Your task to perform on an android device: Open the map Image 0: 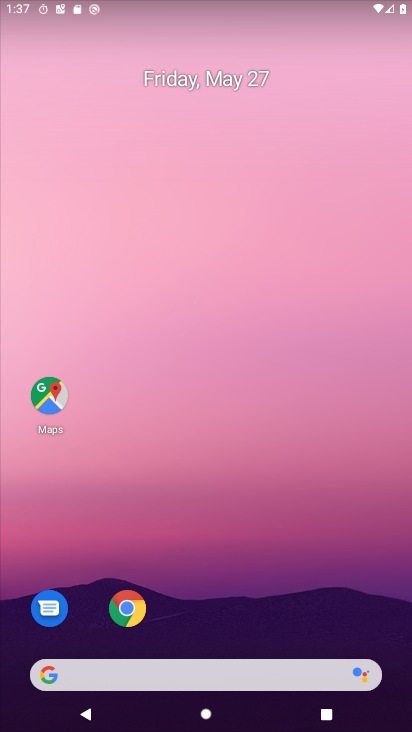
Step 0: click (57, 384)
Your task to perform on an android device: Open the map Image 1: 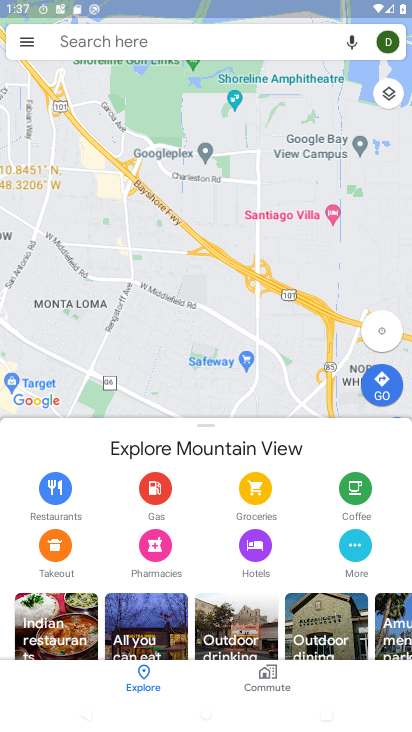
Step 1: task complete